Your task to perform on an android device: turn smart compose on in the gmail app Image 0: 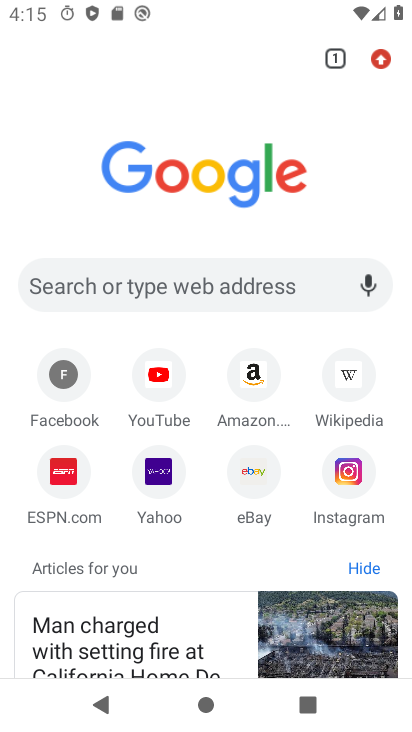
Step 0: press home button
Your task to perform on an android device: turn smart compose on in the gmail app Image 1: 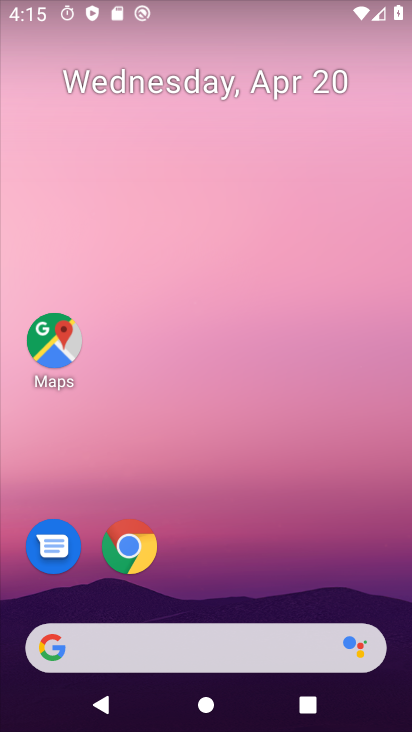
Step 1: drag from (286, 443) to (305, 98)
Your task to perform on an android device: turn smart compose on in the gmail app Image 2: 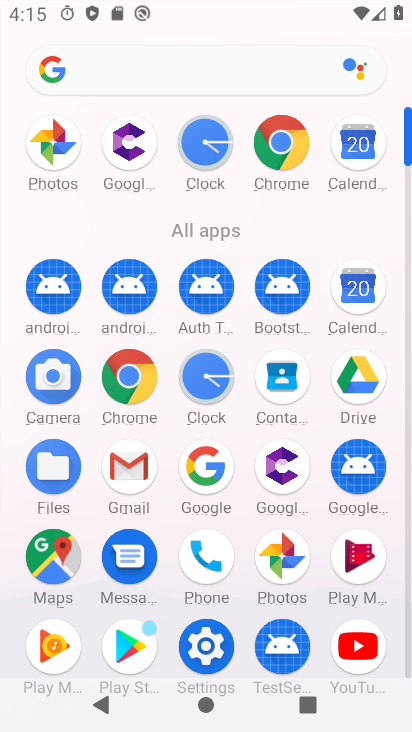
Step 2: click (134, 459)
Your task to perform on an android device: turn smart compose on in the gmail app Image 3: 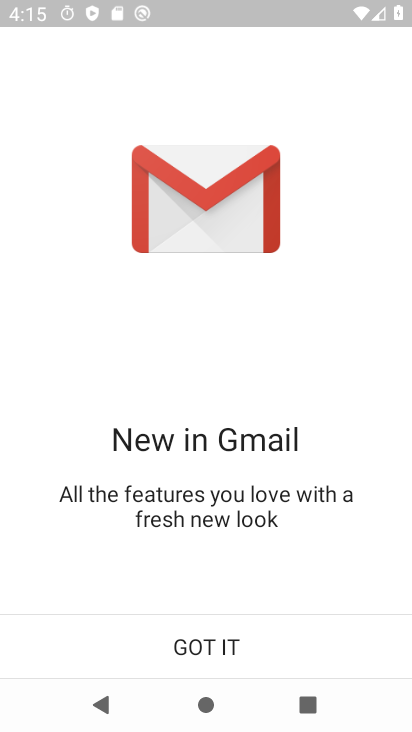
Step 3: click (250, 640)
Your task to perform on an android device: turn smart compose on in the gmail app Image 4: 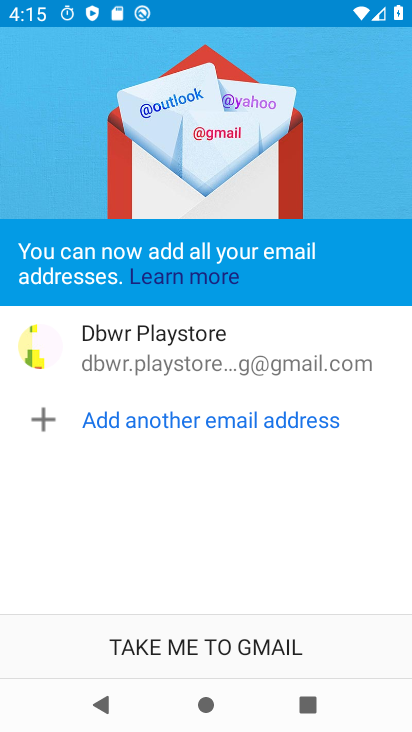
Step 4: click (249, 639)
Your task to perform on an android device: turn smart compose on in the gmail app Image 5: 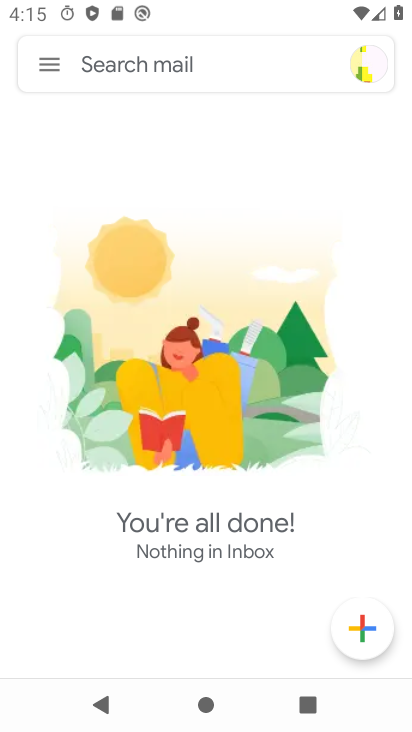
Step 5: click (52, 63)
Your task to perform on an android device: turn smart compose on in the gmail app Image 6: 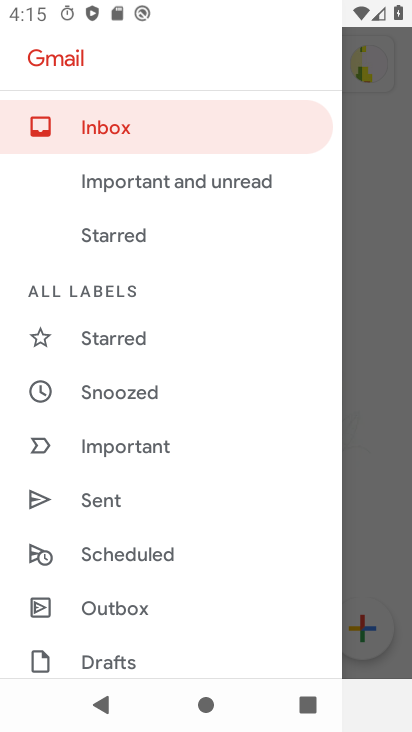
Step 6: drag from (181, 575) to (178, 165)
Your task to perform on an android device: turn smart compose on in the gmail app Image 7: 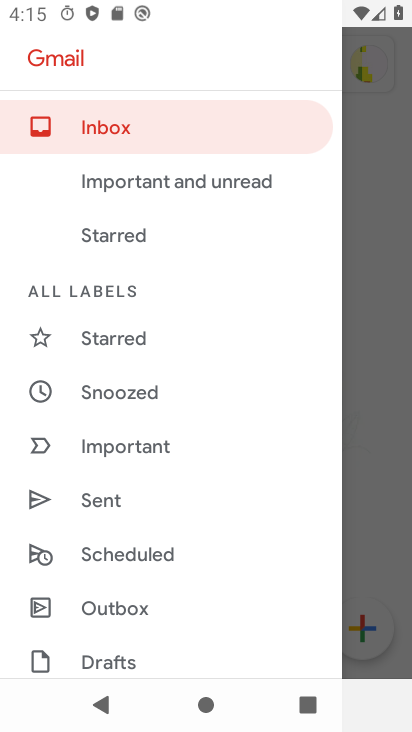
Step 7: drag from (139, 609) to (148, 266)
Your task to perform on an android device: turn smart compose on in the gmail app Image 8: 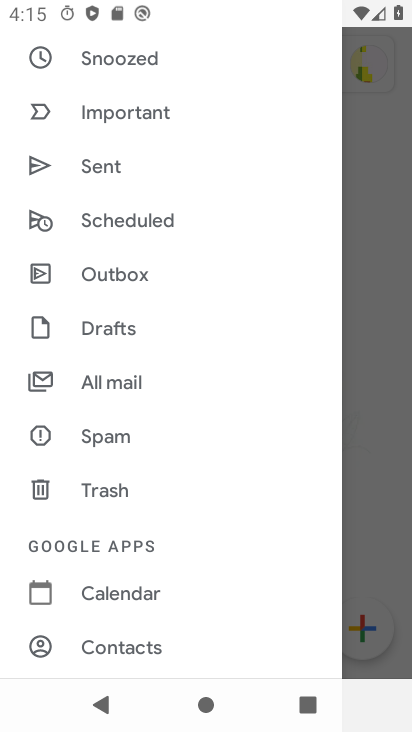
Step 8: drag from (162, 490) to (162, 249)
Your task to perform on an android device: turn smart compose on in the gmail app Image 9: 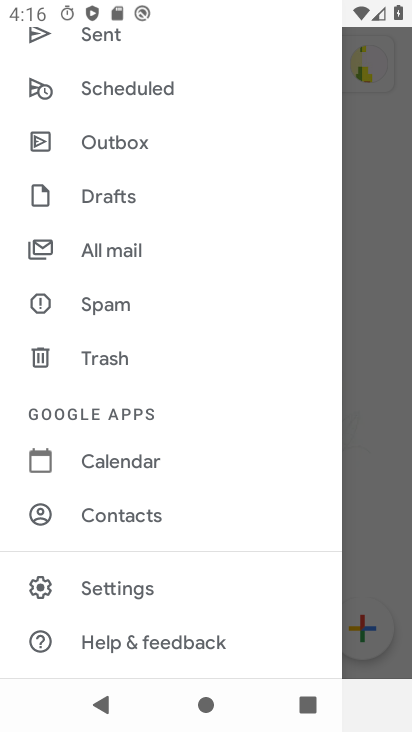
Step 9: click (141, 581)
Your task to perform on an android device: turn smart compose on in the gmail app Image 10: 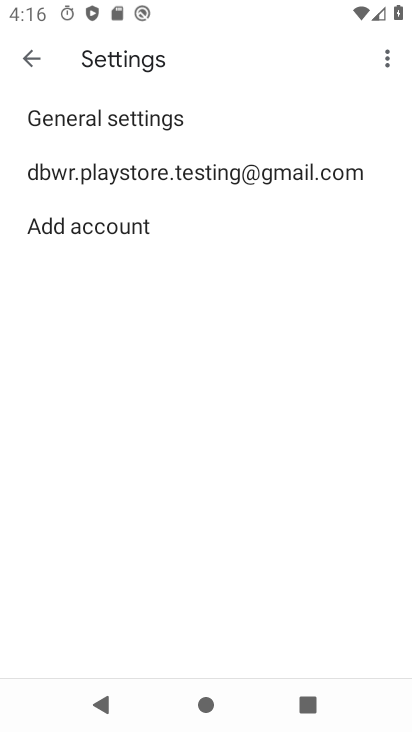
Step 10: click (303, 174)
Your task to perform on an android device: turn smart compose on in the gmail app Image 11: 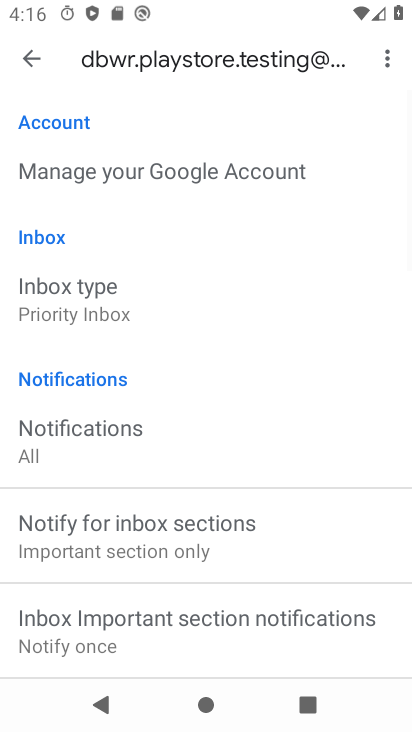
Step 11: task complete